Your task to perform on an android device: Open ESPN.com Image 0: 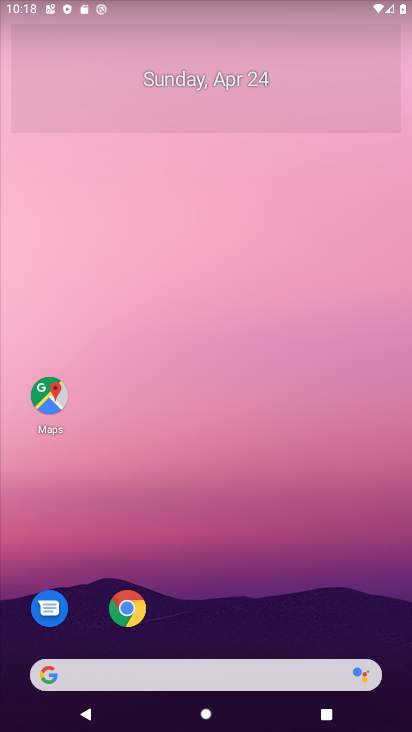
Step 0: click (251, 13)
Your task to perform on an android device: Open ESPN.com Image 1: 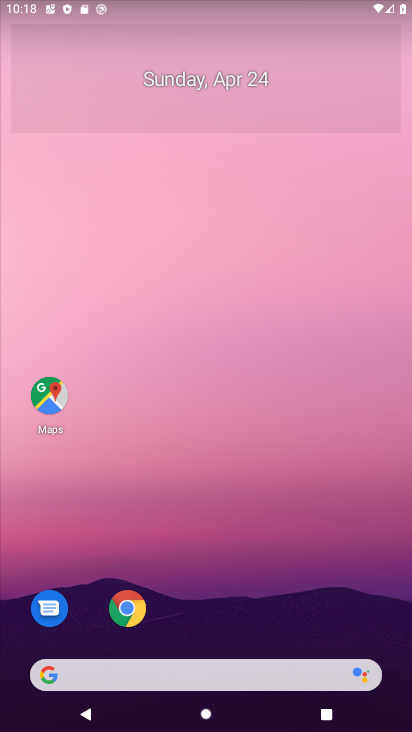
Step 1: drag from (247, 585) to (238, 177)
Your task to perform on an android device: Open ESPN.com Image 2: 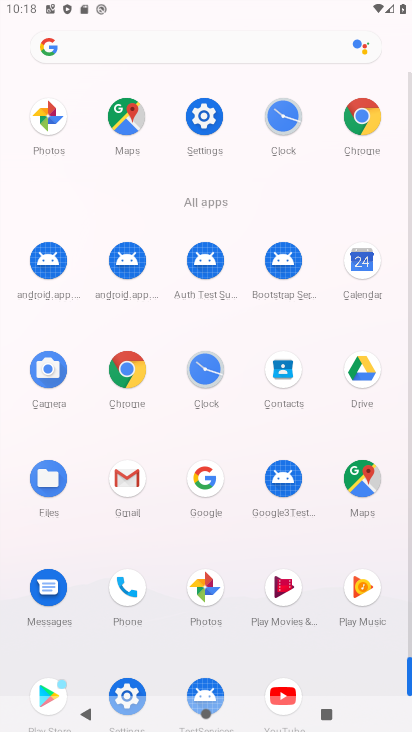
Step 2: click (126, 370)
Your task to perform on an android device: Open ESPN.com Image 3: 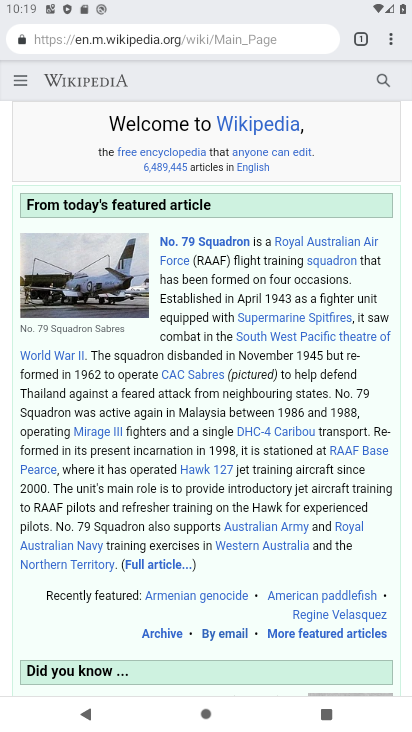
Step 3: click (197, 31)
Your task to perform on an android device: Open ESPN.com Image 4: 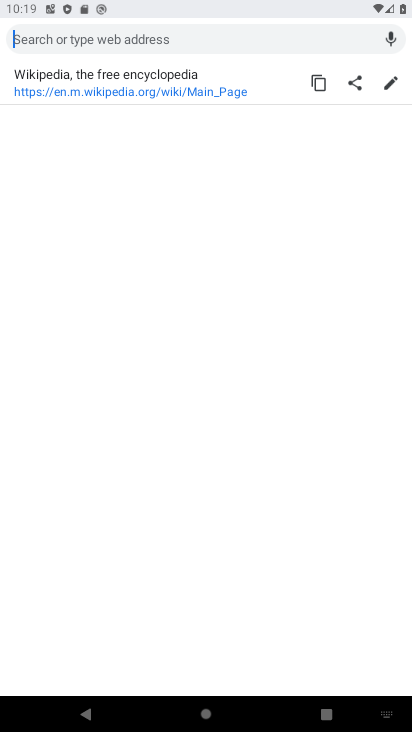
Step 4: type "espn.com"
Your task to perform on an android device: Open ESPN.com Image 5: 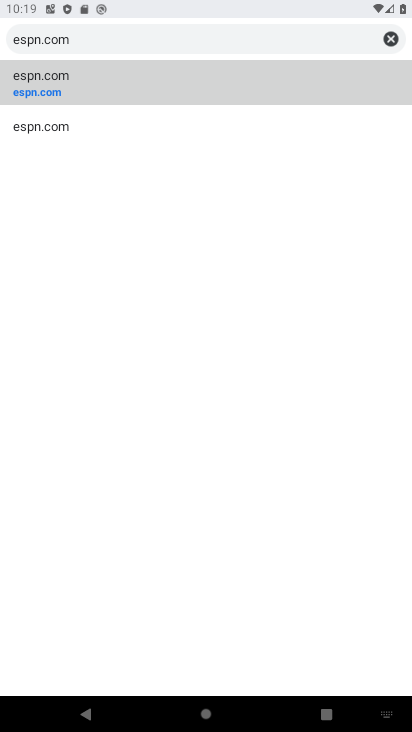
Step 5: click (18, 83)
Your task to perform on an android device: Open ESPN.com Image 6: 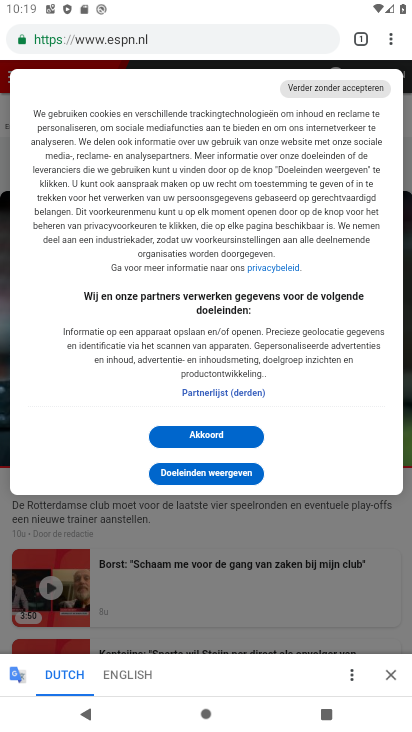
Step 6: task complete